Your task to perform on an android device: Open display settings Image 0: 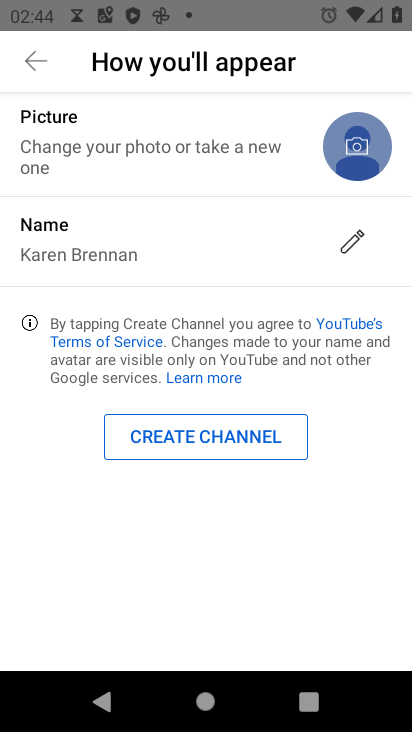
Step 0: press home button
Your task to perform on an android device: Open display settings Image 1: 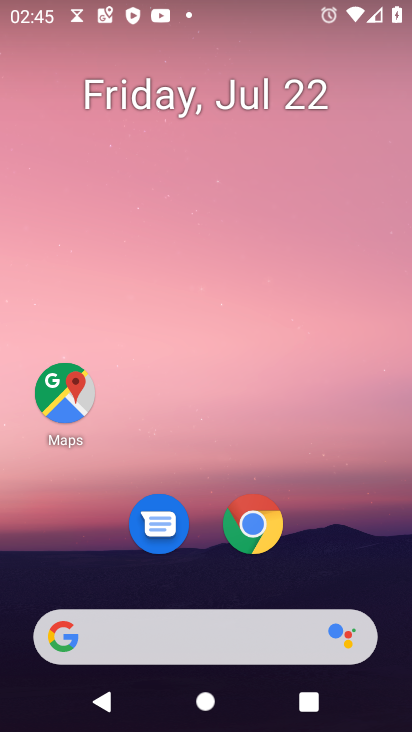
Step 1: drag from (164, 633) to (258, 161)
Your task to perform on an android device: Open display settings Image 2: 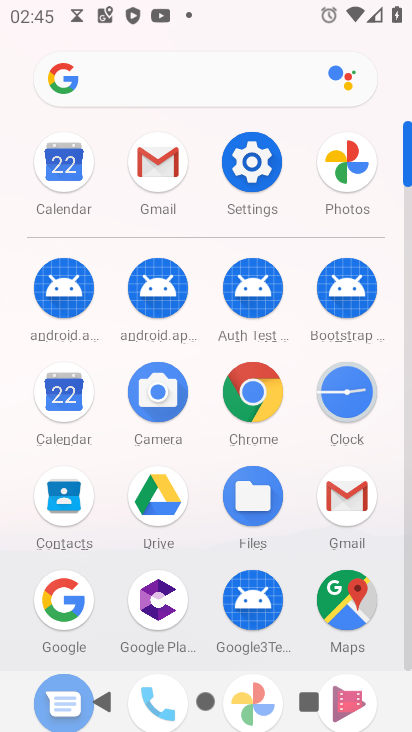
Step 2: click (257, 160)
Your task to perform on an android device: Open display settings Image 3: 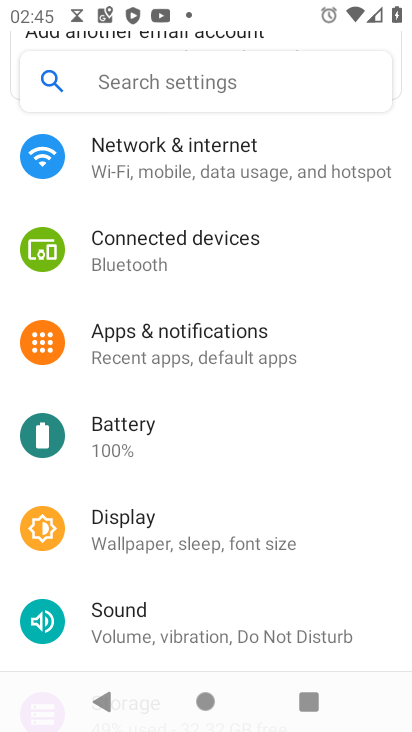
Step 3: click (132, 514)
Your task to perform on an android device: Open display settings Image 4: 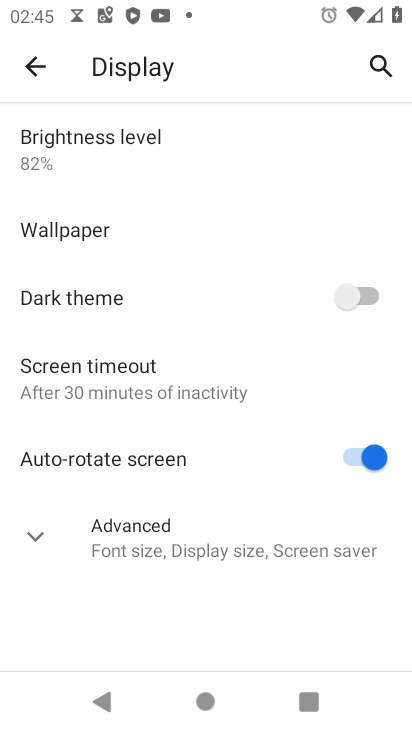
Step 4: task complete